Your task to perform on an android device: turn off smart reply in the gmail app Image 0: 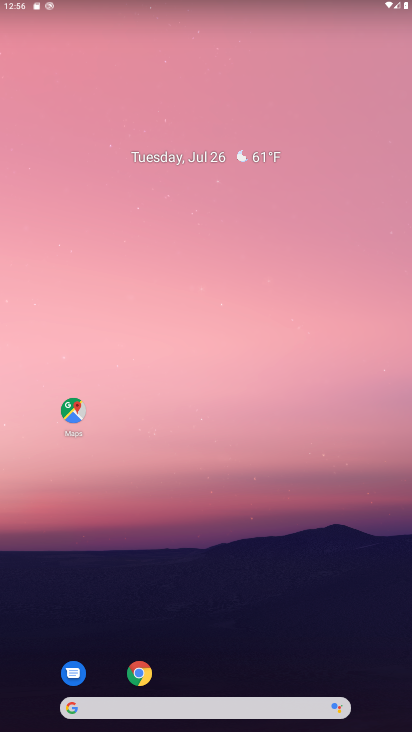
Step 0: press home button
Your task to perform on an android device: turn off smart reply in the gmail app Image 1: 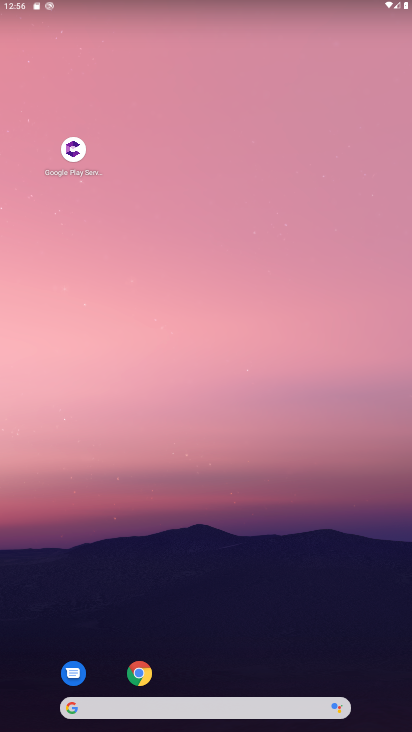
Step 1: drag from (261, 610) to (274, 67)
Your task to perform on an android device: turn off smart reply in the gmail app Image 2: 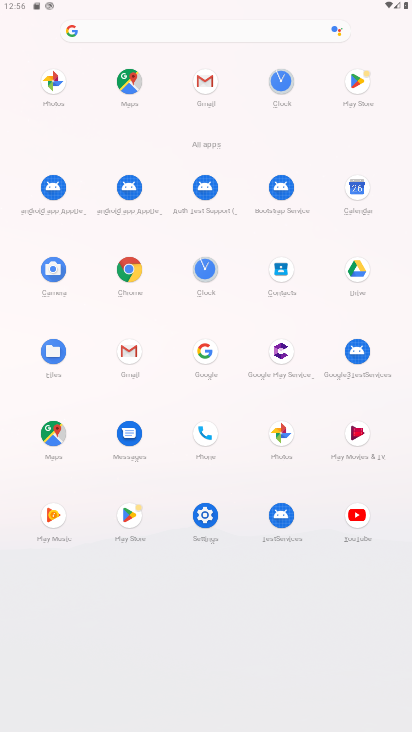
Step 2: click (134, 345)
Your task to perform on an android device: turn off smart reply in the gmail app Image 3: 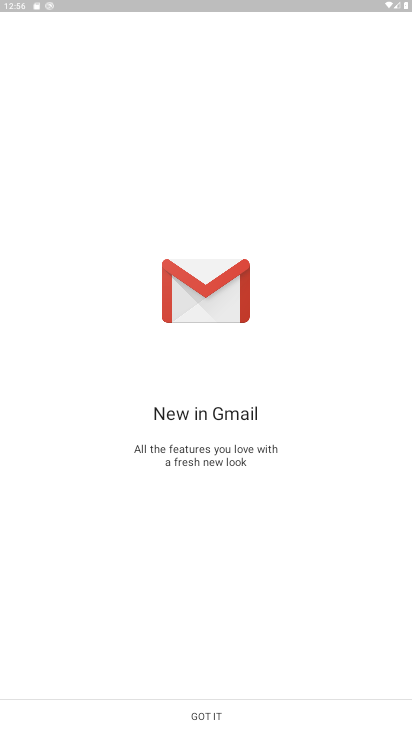
Step 3: click (238, 712)
Your task to perform on an android device: turn off smart reply in the gmail app Image 4: 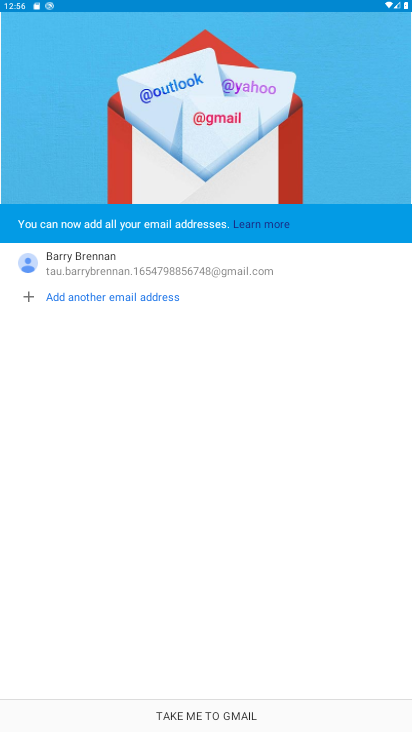
Step 4: click (238, 712)
Your task to perform on an android device: turn off smart reply in the gmail app Image 5: 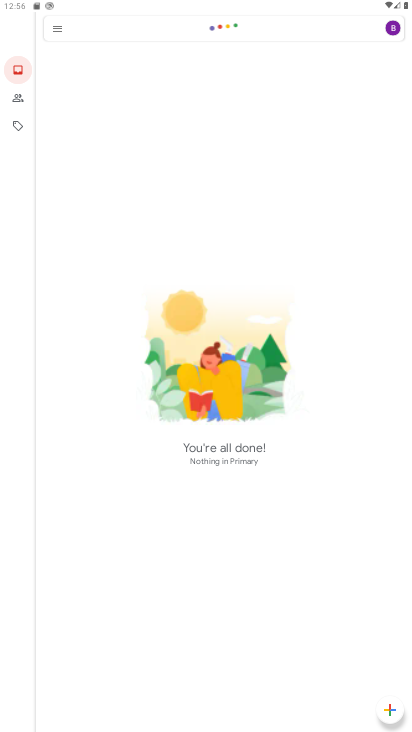
Step 5: click (56, 30)
Your task to perform on an android device: turn off smart reply in the gmail app Image 6: 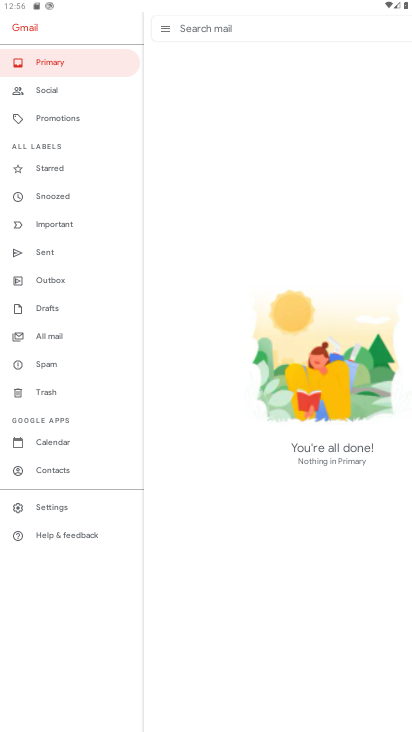
Step 6: click (75, 509)
Your task to perform on an android device: turn off smart reply in the gmail app Image 7: 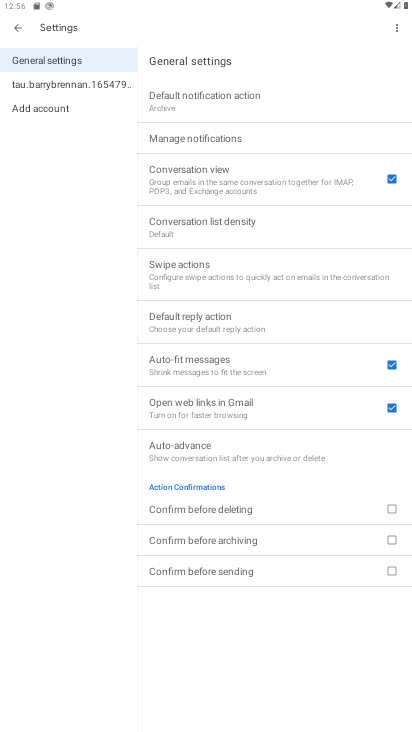
Step 7: click (110, 87)
Your task to perform on an android device: turn off smart reply in the gmail app Image 8: 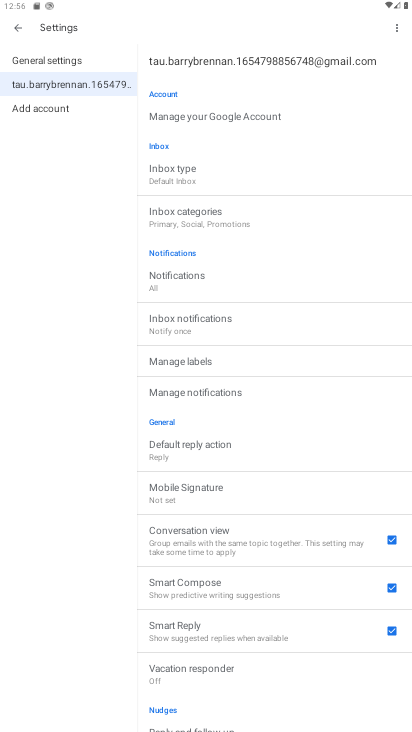
Step 8: click (377, 636)
Your task to perform on an android device: turn off smart reply in the gmail app Image 9: 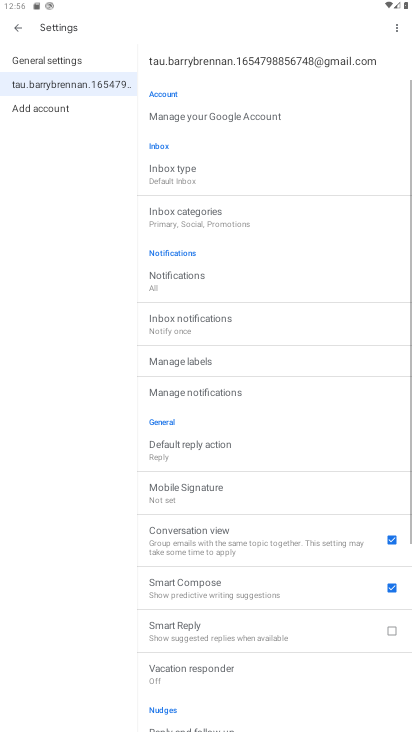
Step 9: task complete